Your task to perform on an android device: Open the Play Movies app and select the watchlist tab. Image 0: 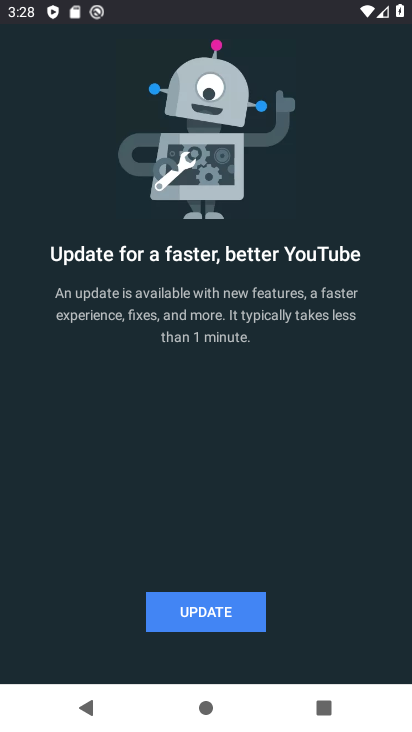
Step 0: press home button
Your task to perform on an android device: Open the Play Movies app and select the watchlist tab. Image 1: 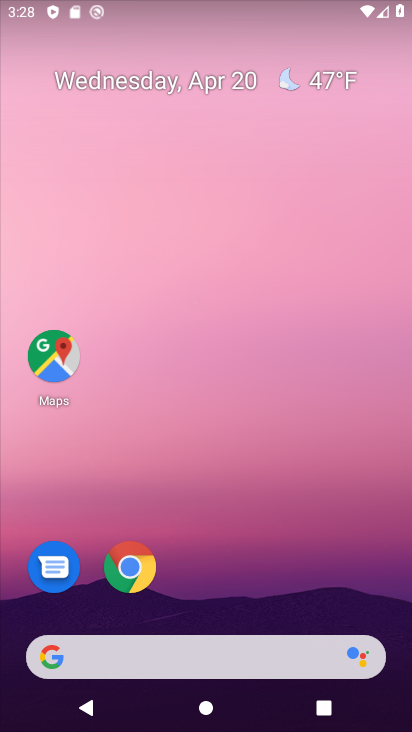
Step 1: drag from (196, 609) to (135, 0)
Your task to perform on an android device: Open the Play Movies app and select the watchlist tab. Image 2: 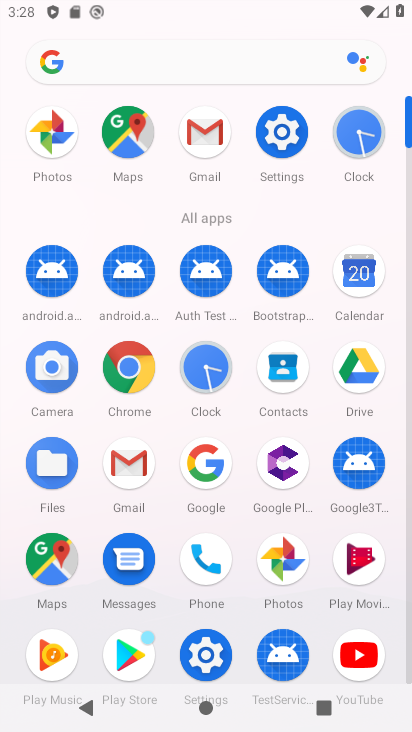
Step 2: click (348, 565)
Your task to perform on an android device: Open the Play Movies app and select the watchlist tab. Image 3: 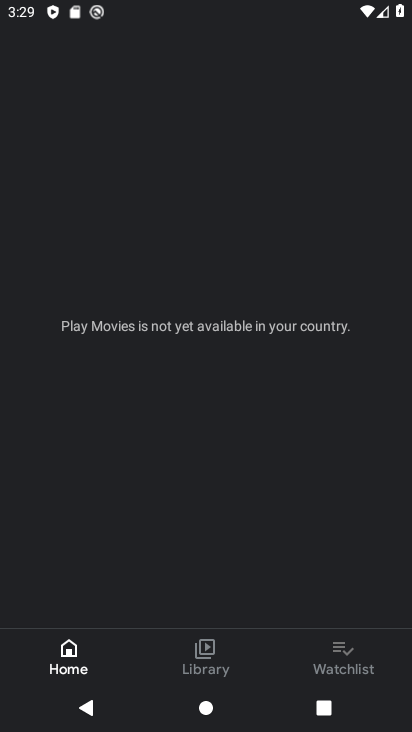
Step 3: click (346, 640)
Your task to perform on an android device: Open the Play Movies app and select the watchlist tab. Image 4: 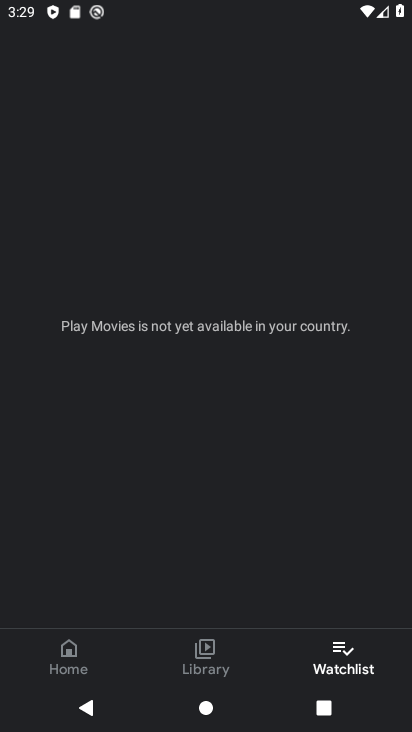
Step 4: task complete